Your task to perform on an android device: turn notification dots off Image 0: 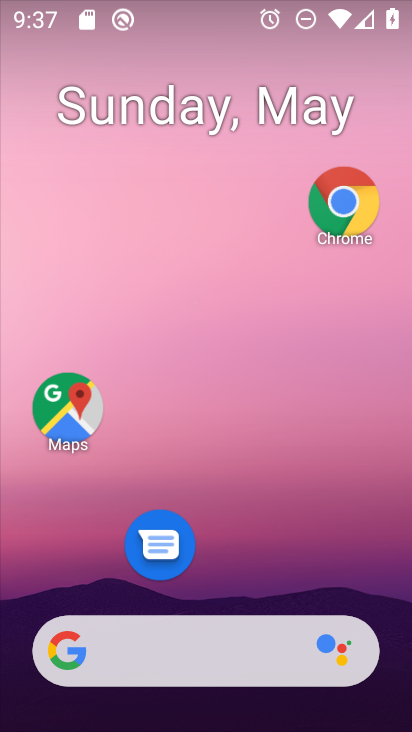
Step 0: drag from (228, 363) to (209, 58)
Your task to perform on an android device: turn notification dots off Image 1: 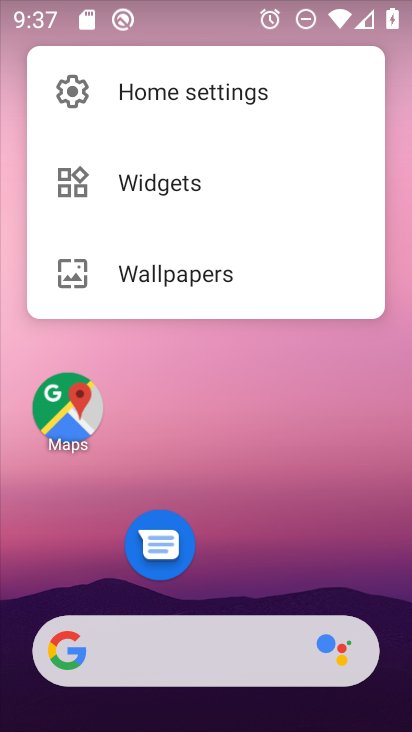
Step 1: click (222, 500)
Your task to perform on an android device: turn notification dots off Image 2: 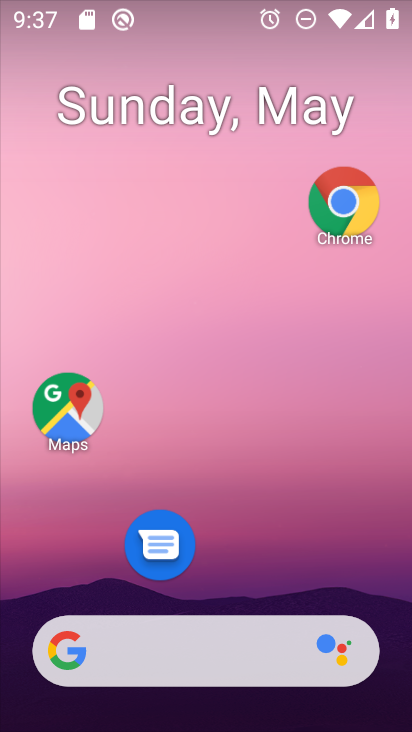
Step 2: drag from (237, 527) to (256, 50)
Your task to perform on an android device: turn notification dots off Image 3: 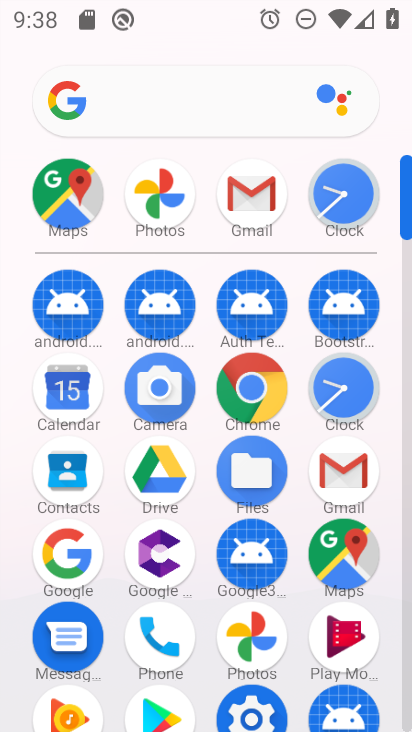
Step 3: click (242, 702)
Your task to perform on an android device: turn notification dots off Image 4: 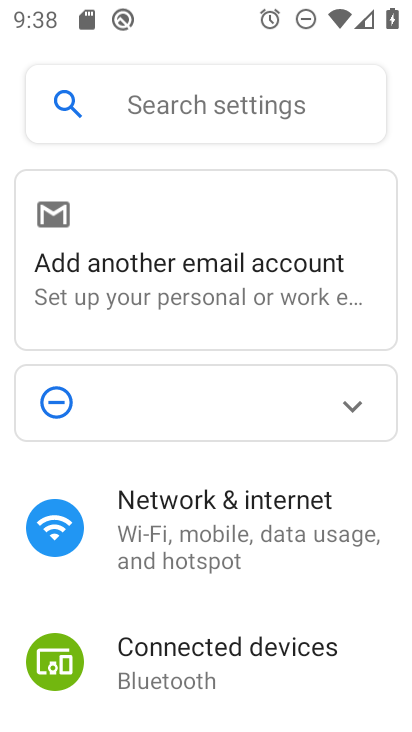
Step 4: drag from (189, 632) to (232, 328)
Your task to perform on an android device: turn notification dots off Image 5: 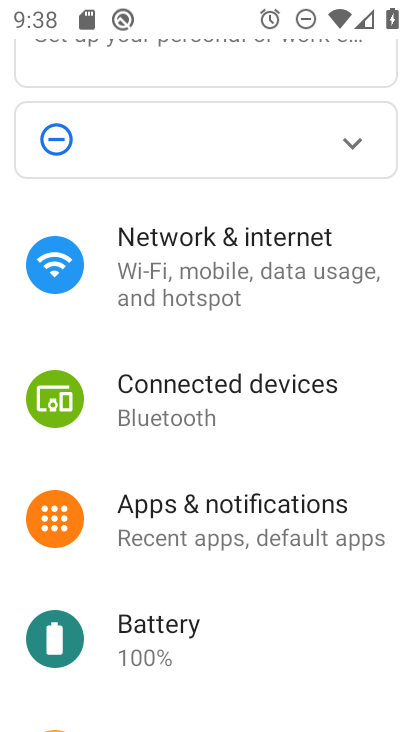
Step 5: click (208, 515)
Your task to perform on an android device: turn notification dots off Image 6: 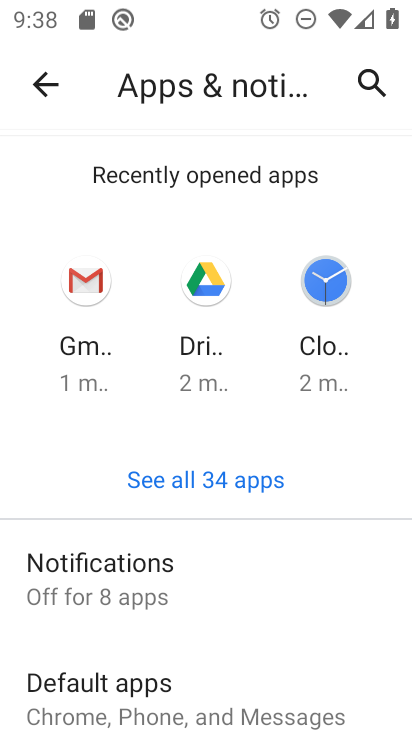
Step 6: click (181, 574)
Your task to perform on an android device: turn notification dots off Image 7: 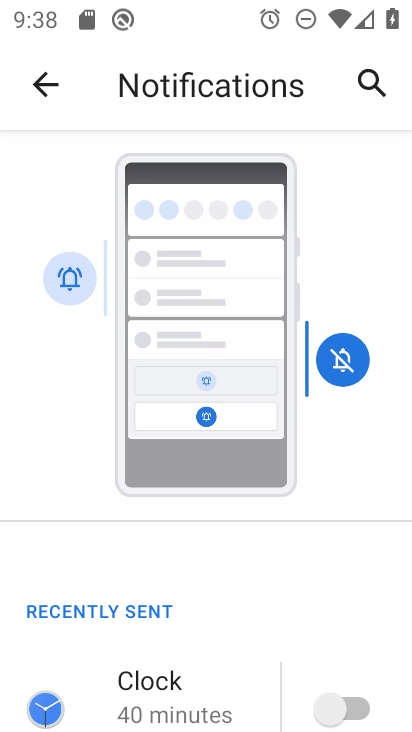
Step 7: drag from (197, 625) to (216, 266)
Your task to perform on an android device: turn notification dots off Image 8: 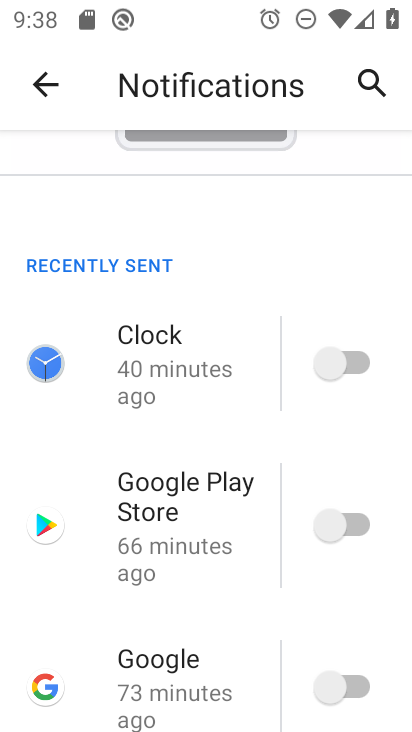
Step 8: drag from (185, 639) to (202, 280)
Your task to perform on an android device: turn notification dots off Image 9: 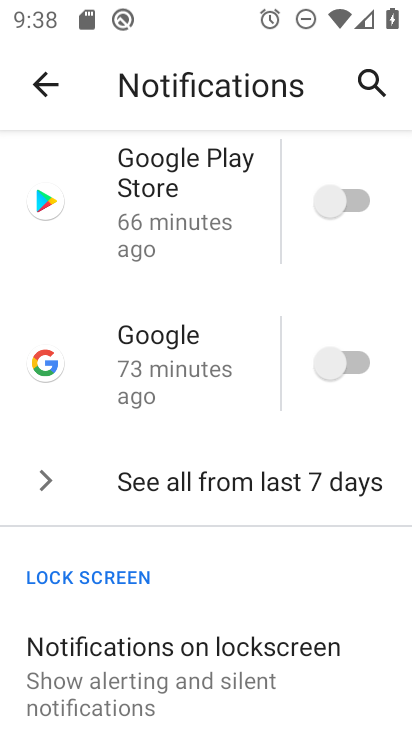
Step 9: drag from (260, 646) to (255, 354)
Your task to perform on an android device: turn notification dots off Image 10: 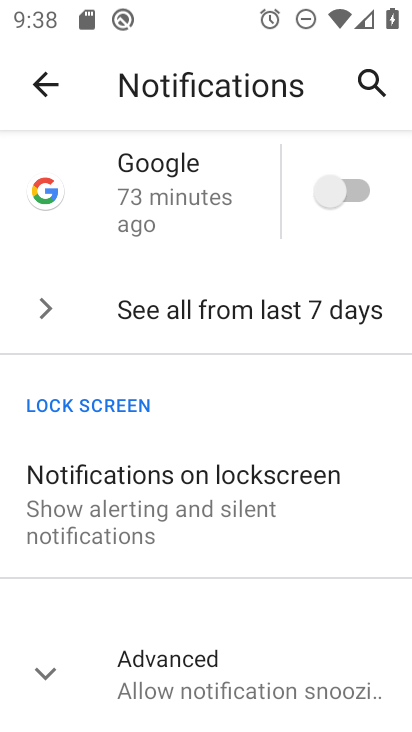
Step 10: click (277, 681)
Your task to perform on an android device: turn notification dots off Image 11: 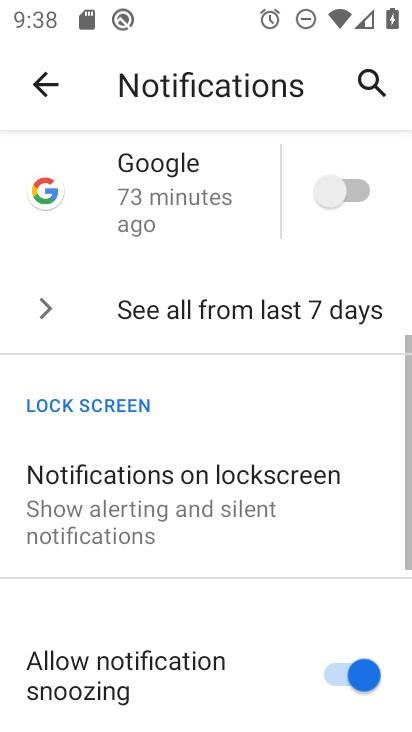
Step 11: drag from (275, 681) to (269, 313)
Your task to perform on an android device: turn notification dots off Image 12: 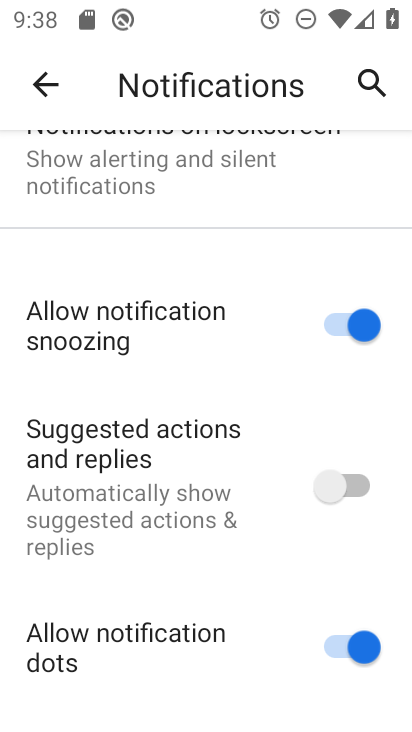
Step 12: drag from (204, 622) to (204, 413)
Your task to perform on an android device: turn notification dots off Image 13: 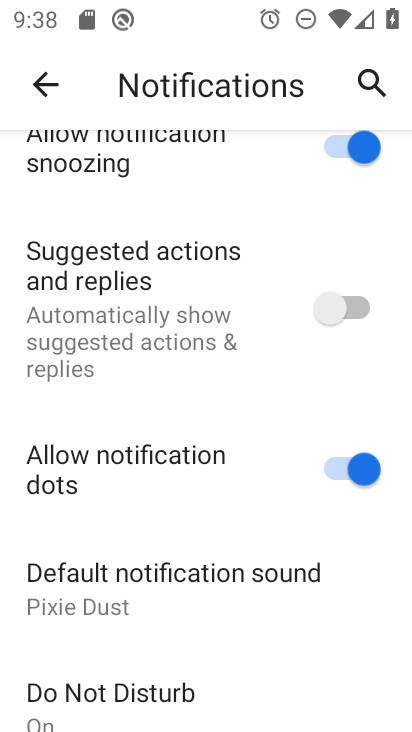
Step 13: click (324, 463)
Your task to perform on an android device: turn notification dots off Image 14: 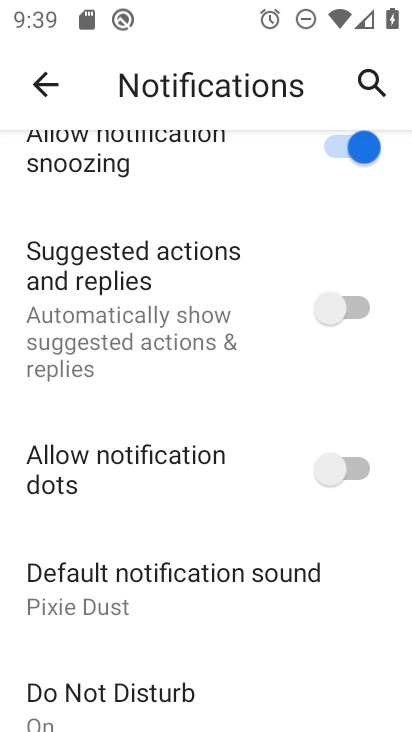
Step 14: task complete